Your task to perform on an android device: Open settings on Google Maps Image 0: 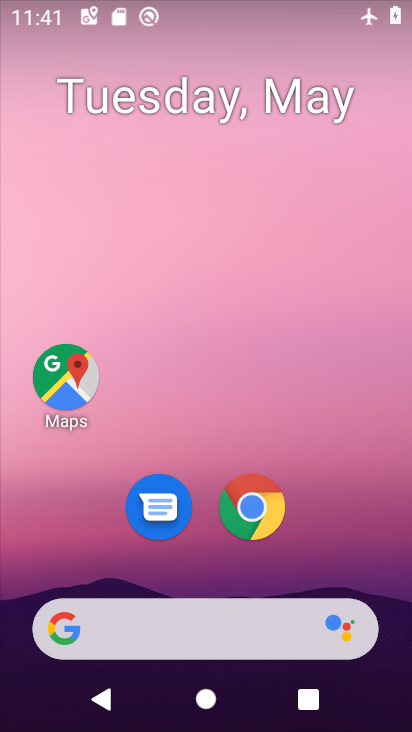
Step 0: drag from (260, 675) to (208, 170)
Your task to perform on an android device: Open settings on Google Maps Image 1: 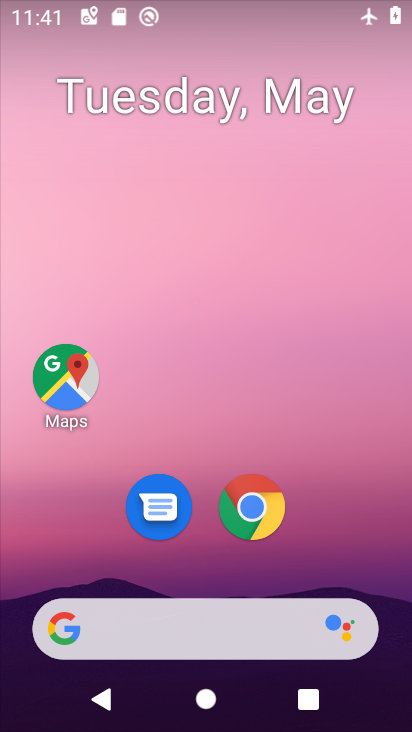
Step 1: drag from (265, 710) to (171, 195)
Your task to perform on an android device: Open settings on Google Maps Image 2: 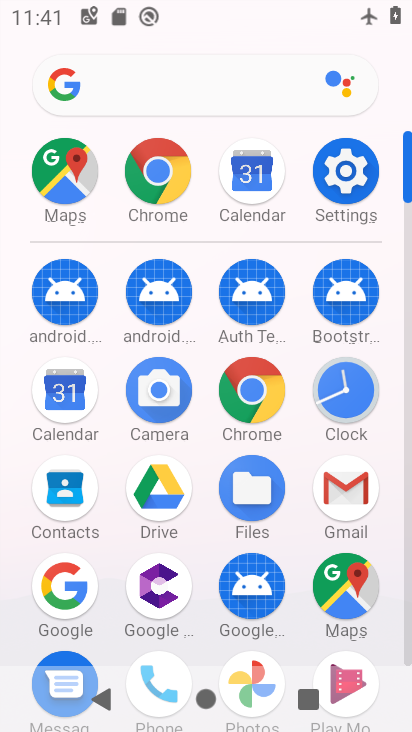
Step 2: click (332, 595)
Your task to perform on an android device: Open settings on Google Maps Image 3: 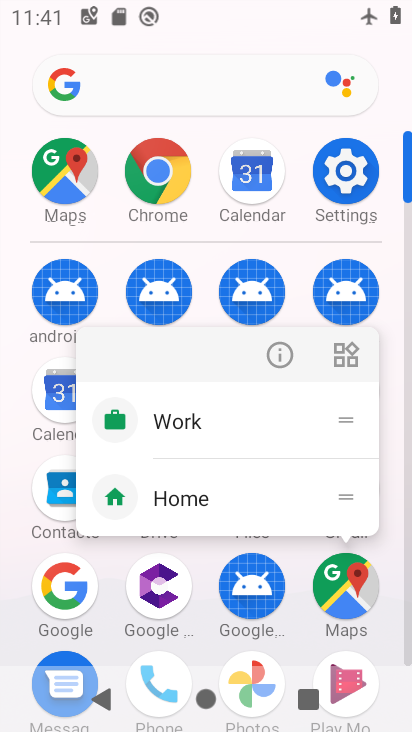
Step 3: click (346, 585)
Your task to perform on an android device: Open settings on Google Maps Image 4: 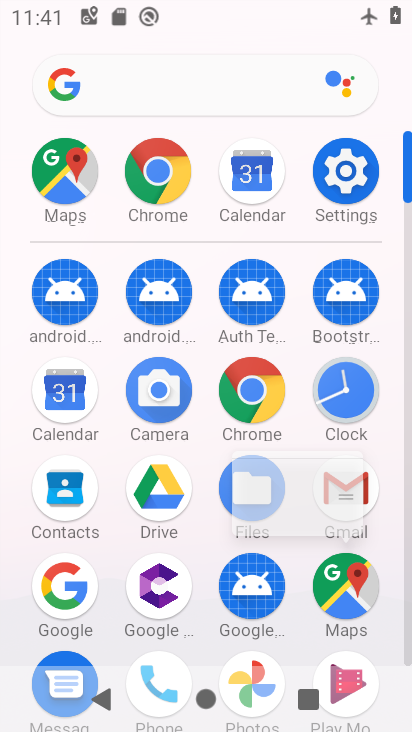
Step 4: click (346, 585)
Your task to perform on an android device: Open settings on Google Maps Image 5: 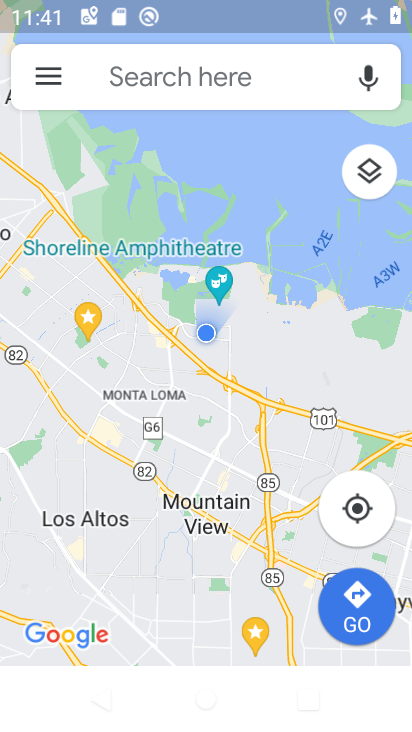
Step 5: click (49, 62)
Your task to perform on an android device: Open settings on Google Maps Image 6: 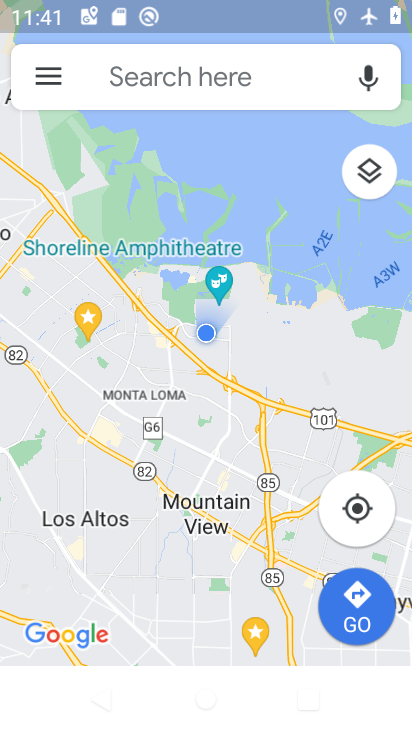
Step 6: click (49, 62)
Your task to perform on an android device: Open settings on Google Maps Image 7: 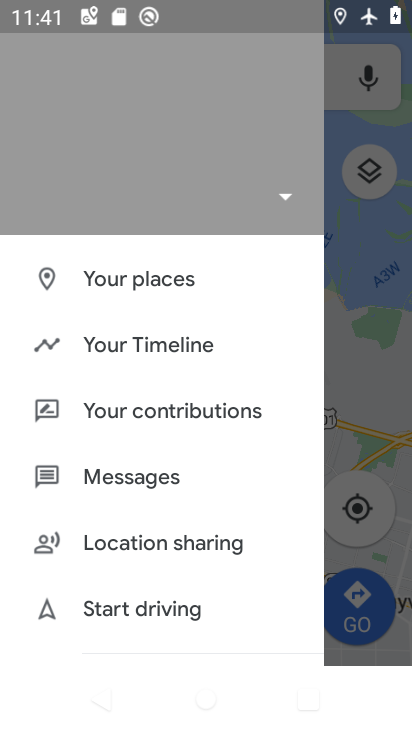
Step 7: click (170, 339)
Your task to perform on an android device: Open settings on Google Maps Image 8: 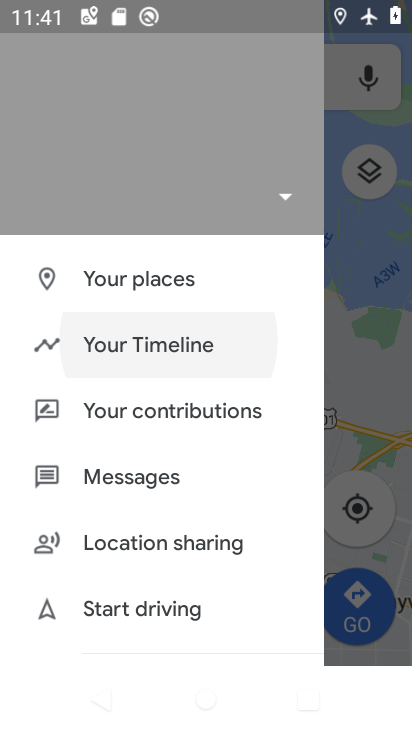
Step 8: click (170, 339)
Your task to perform on an android device: Open settings on Google Maps Image 9: 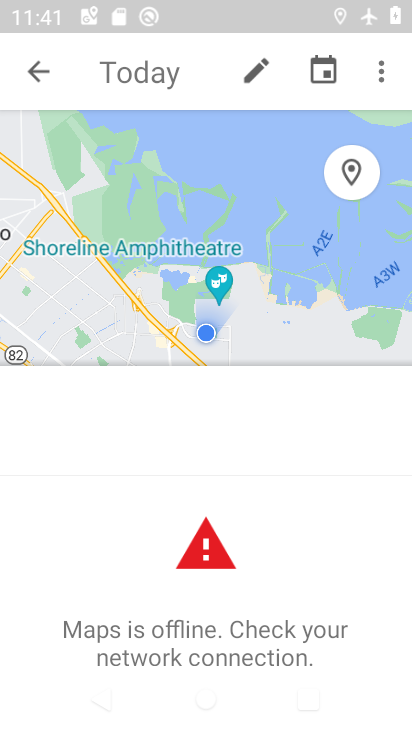
Step 9: click (382, 75)
Your task to perform on an android device: Open settings on Google Maps Image 10: 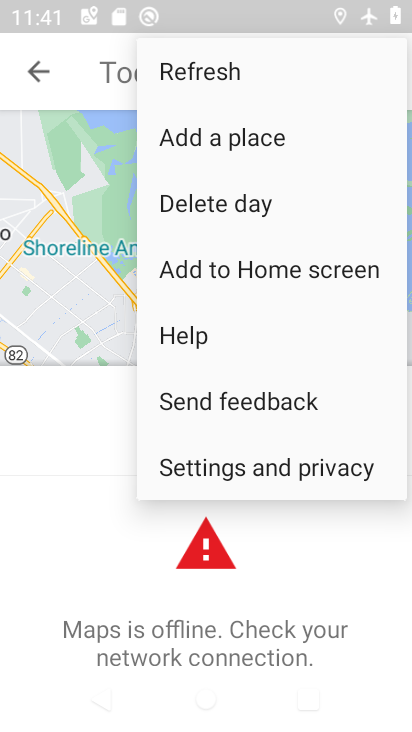
Step 10: click (264, 466)
Your task to perform on an android device: Open settings on Google Maps Image 11: 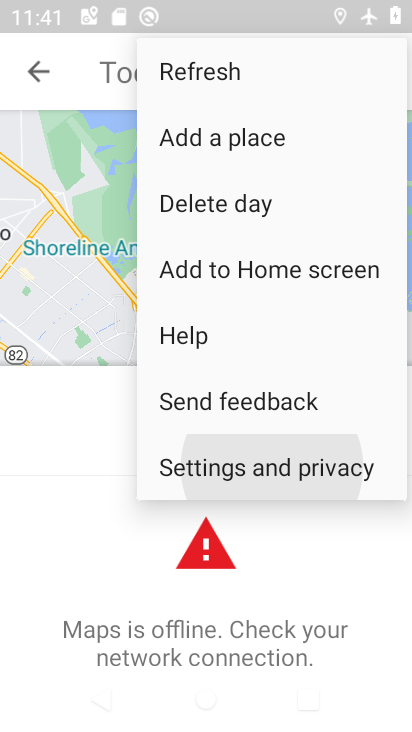
Step 11: click (263, 465)
Your task to perform on an android device: Open settings on Google Maps Image 12: 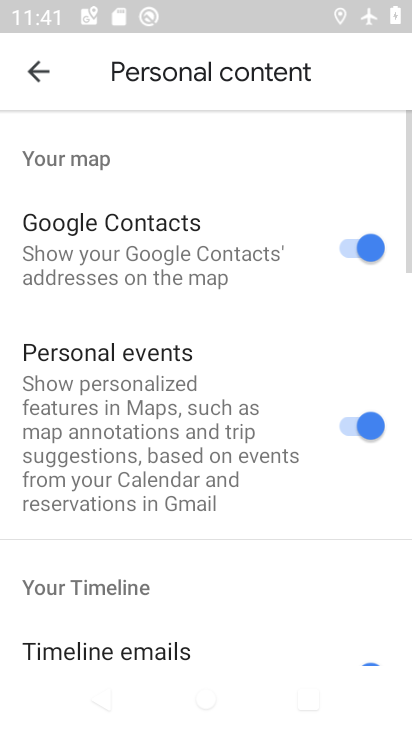
Step 12: task complete